Your task to perform on an android device: Search for Italian restaurants on Maps Image 0: 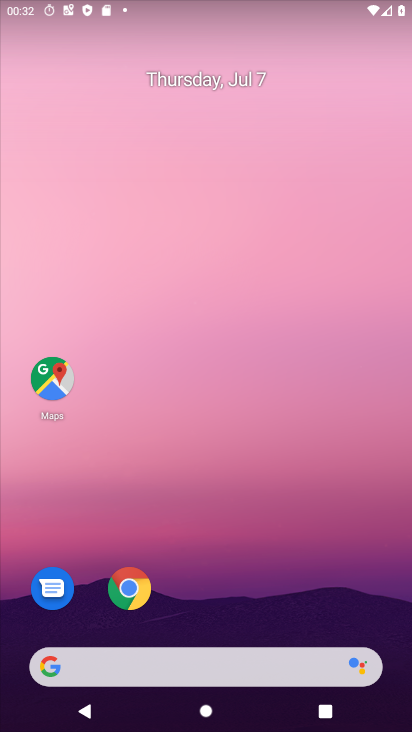
Step 0: drag from (233, 689) to (233, 618)
Your task to perform on an android device: Search for Italian restaurants on Maps Image 1: 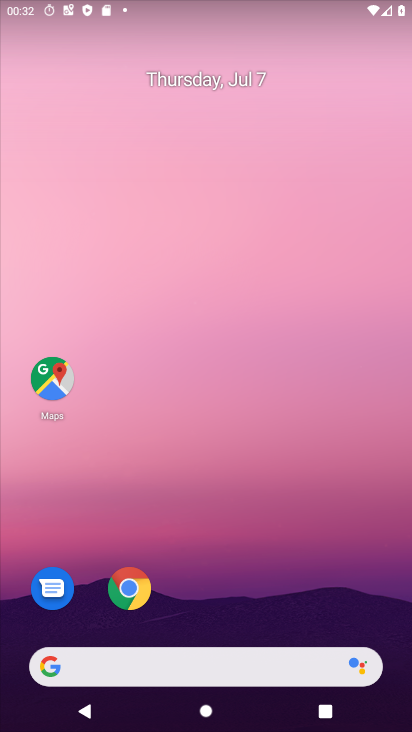
Step 1: click (216, 120)
Your task to perform on an android device: Search for Italian restaurants on Maps Image 2: 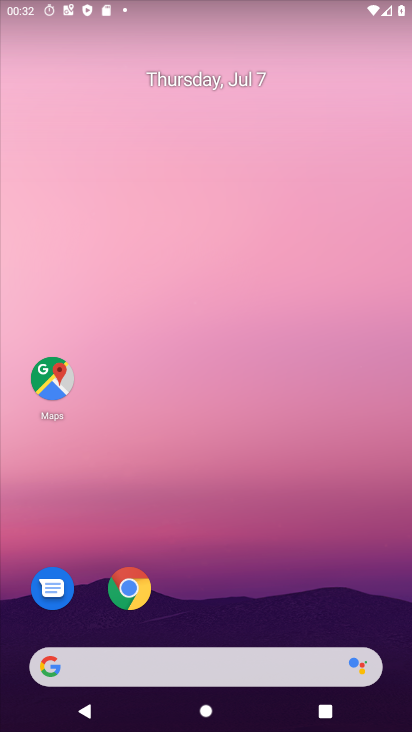
Step 2: drag from (251, 693) to (240, 70)
Your task to perform on an android device: Search for Italian restaurants on Maps Image 3: 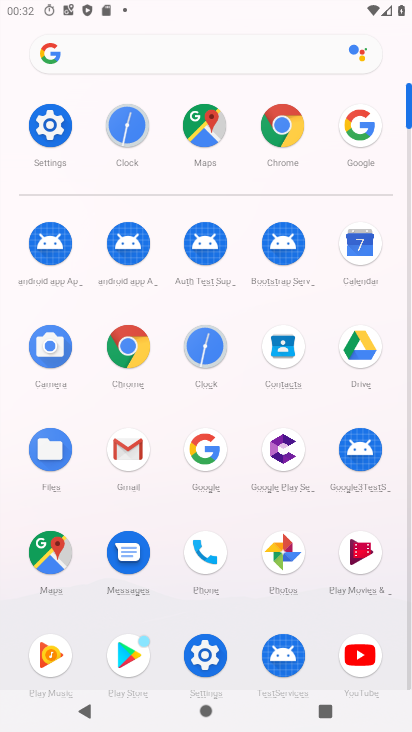
Step 3: click (47, 552)
Your task to perform on an android device: Search for Italian restaurants on Maps Image 4: 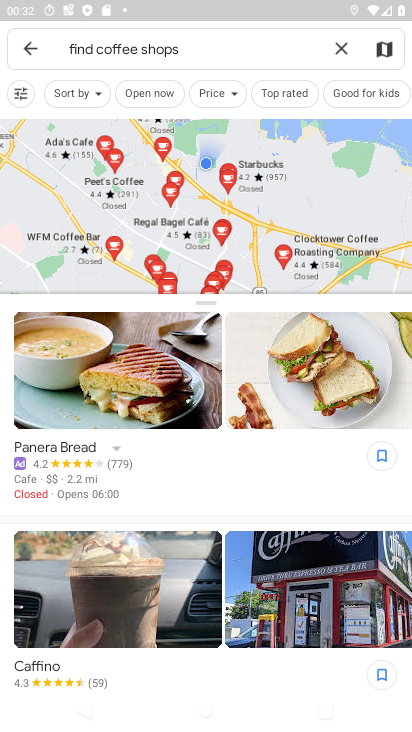
Step 4: click (337, 49)
Your task to perform on an android device: Search for Italian restaurants on Maps Image 5: 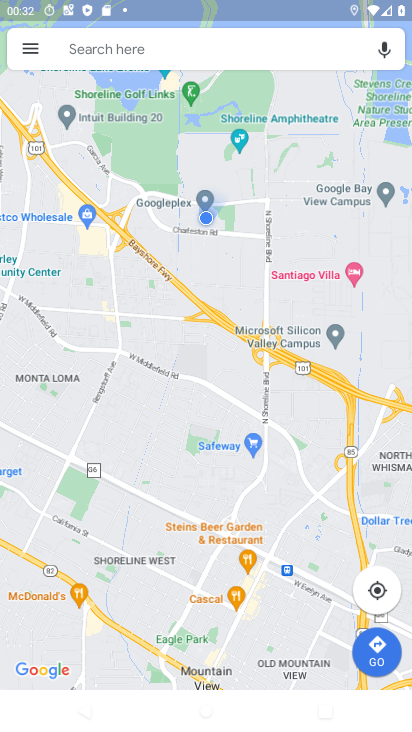
Step 5: click (163, 56)
Your task to perform on an android device: Search for Italian restaurants on Maps Image 6: 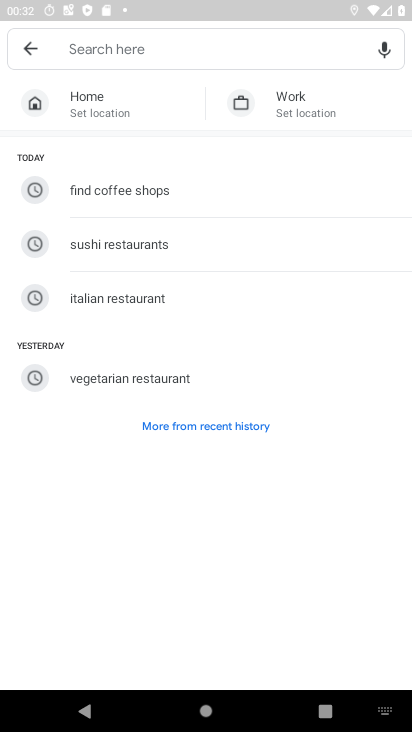
Step 6: type "Italian restaurants"
Your task to perform on an android device: Search for Italian restaurants on Maps Image 7: 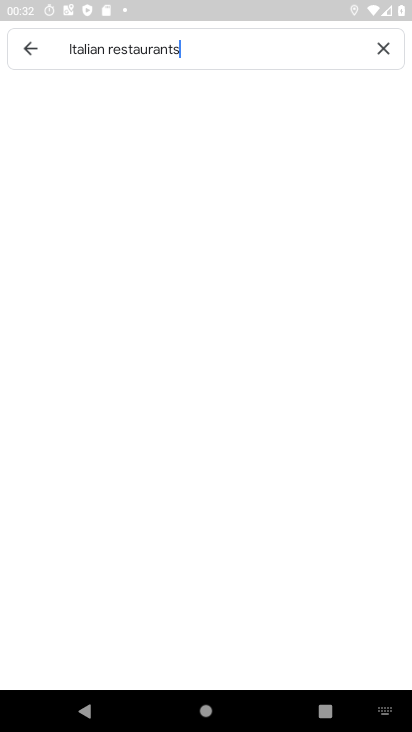
Step 7: type ""
Your task to perform on an android device: Search for Italian restaurants on Maps Image 8: 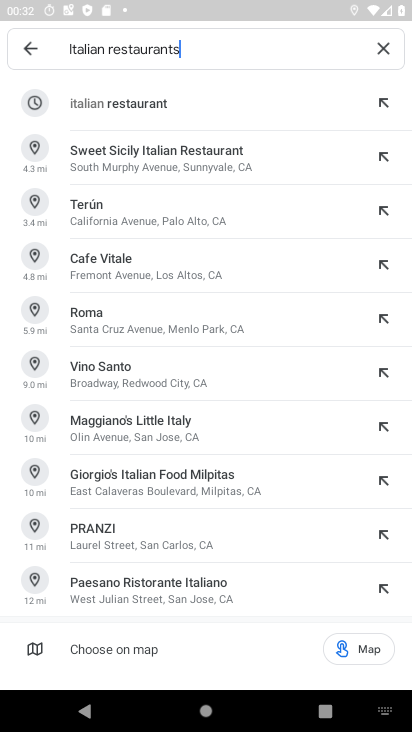
Step 8: click (129, 103)
Your task to perform on an android device: Search for Italian restaurants on Maps Image 9: 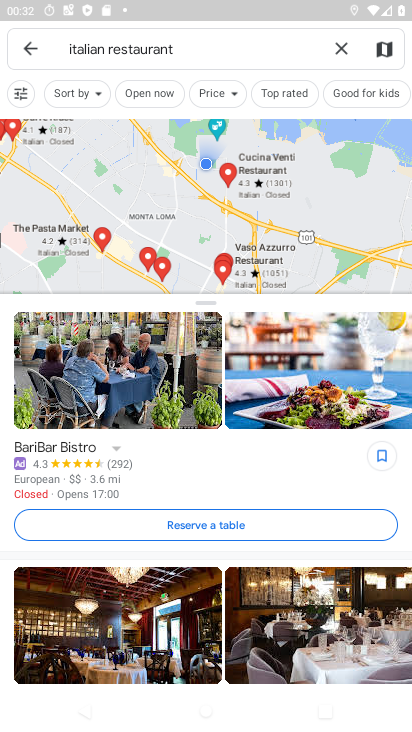
Step 9: task complete